Your task to perform on an android device: Add "corsair k70" to the cart on newegg.com, then select checkout. Image 0: 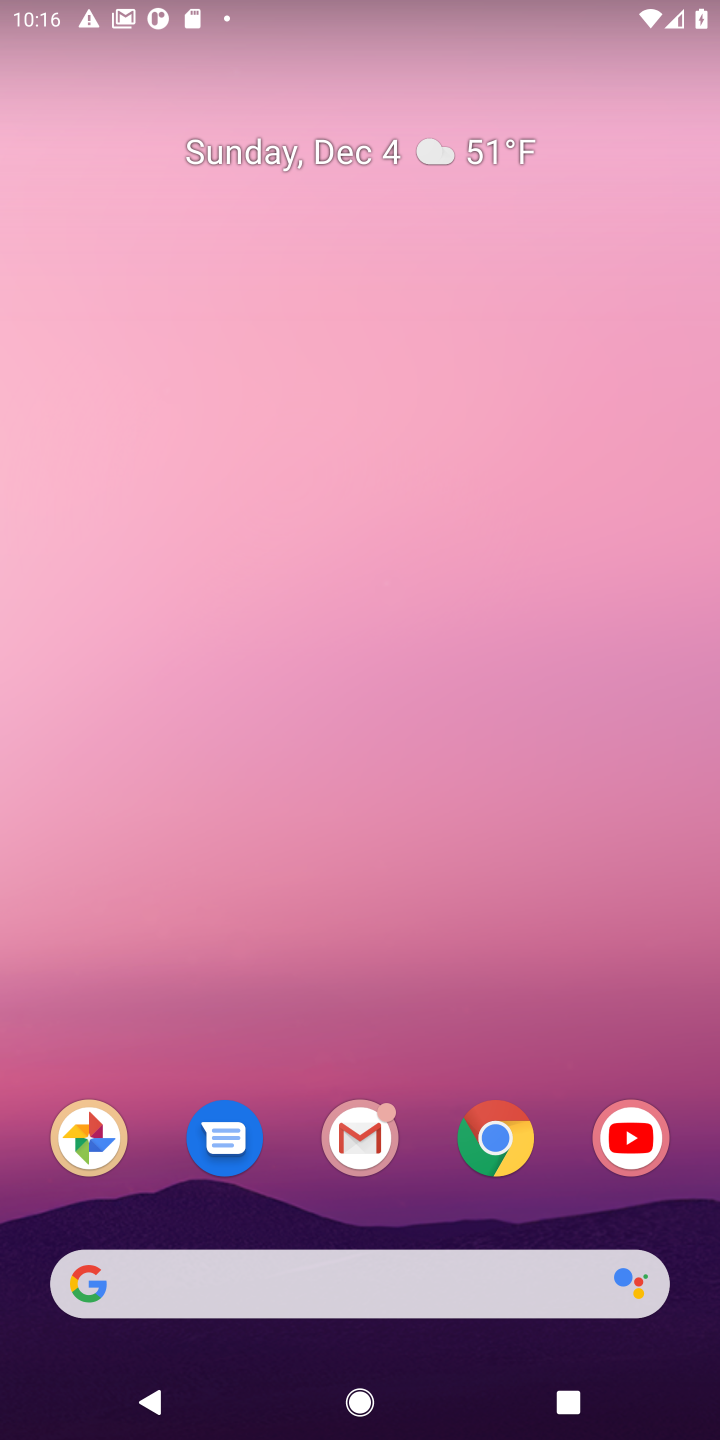
Step 0: click (502, 1140)
Your task to perform on an android device: Add "corsair k70" to the cart on newegg.com, then select checkout. Image 1: 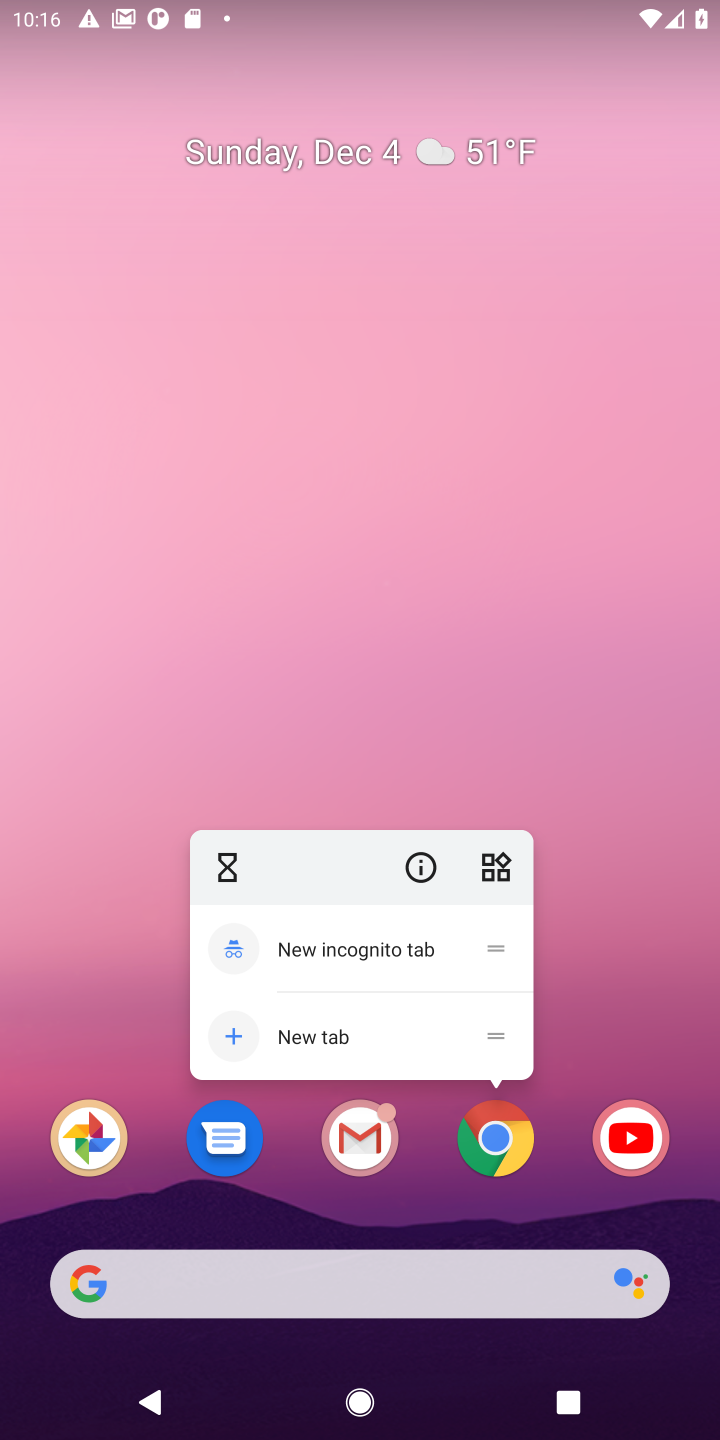
Step 1: click (502, 1140)
Your task to perform on an android device: Add "corsair k70" to the cart on newegg.com, then select checkout. Image 2: 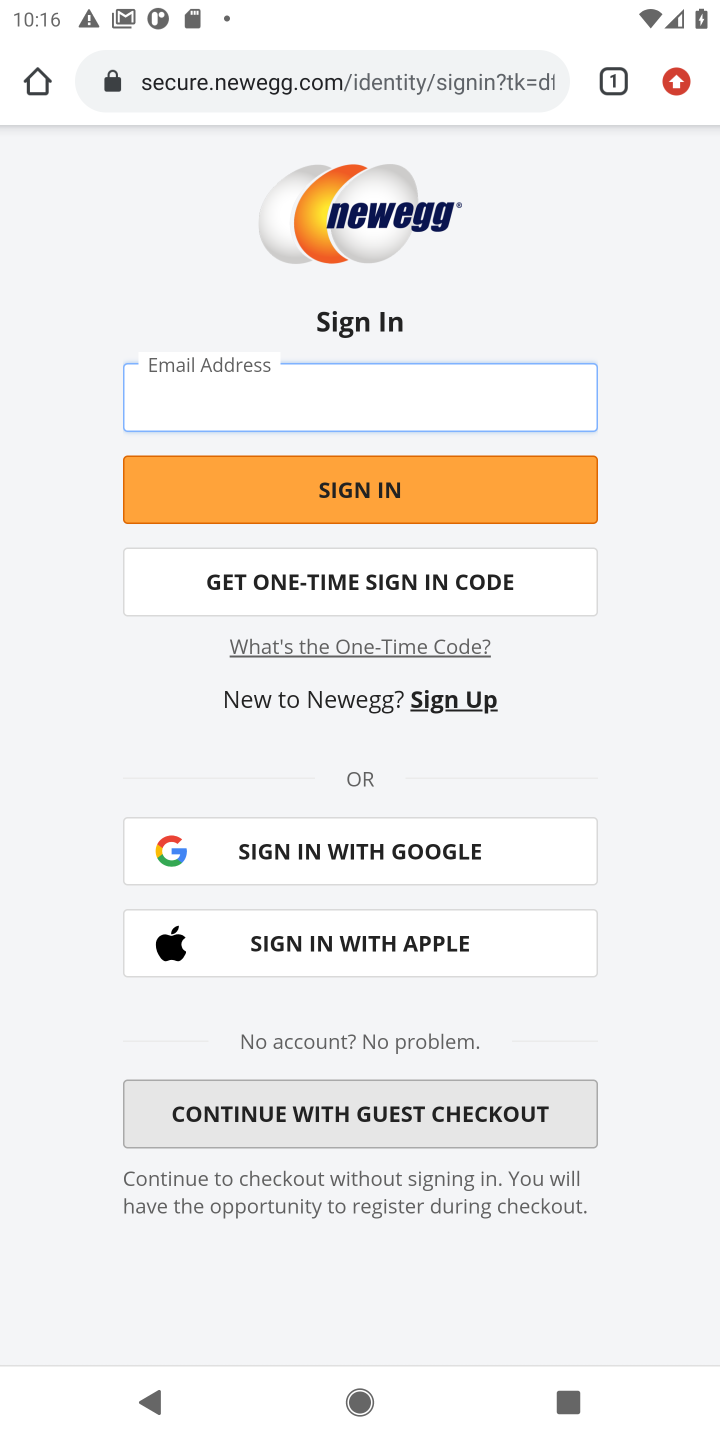
Step 2: press back button
Your task to perform on an android device: Add "corsair k70" to the cart on newegg.com, then select checkout. Image 3: 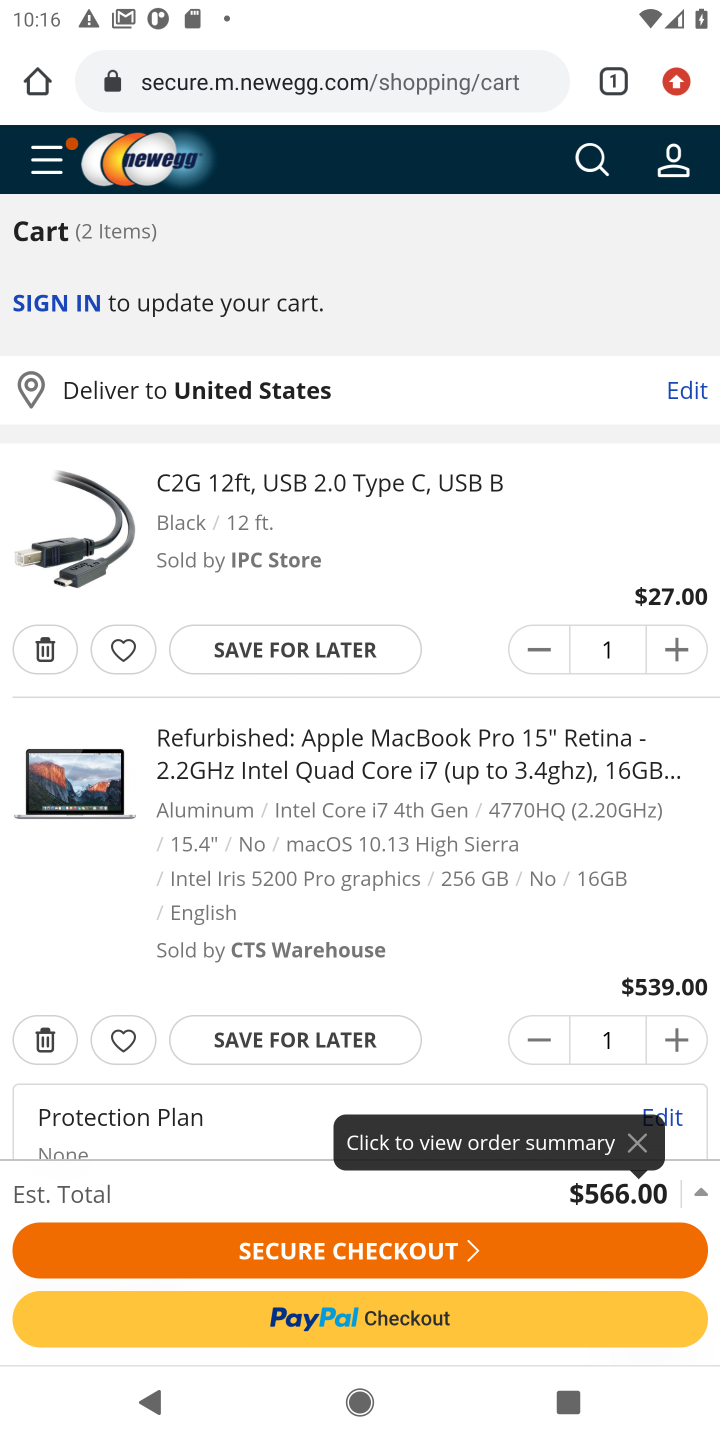
Step 3: click (591, 167)
Your task to perform on an android device: Add "corsair k70" to the cart on newegg.com, then select checkout. Image 4: 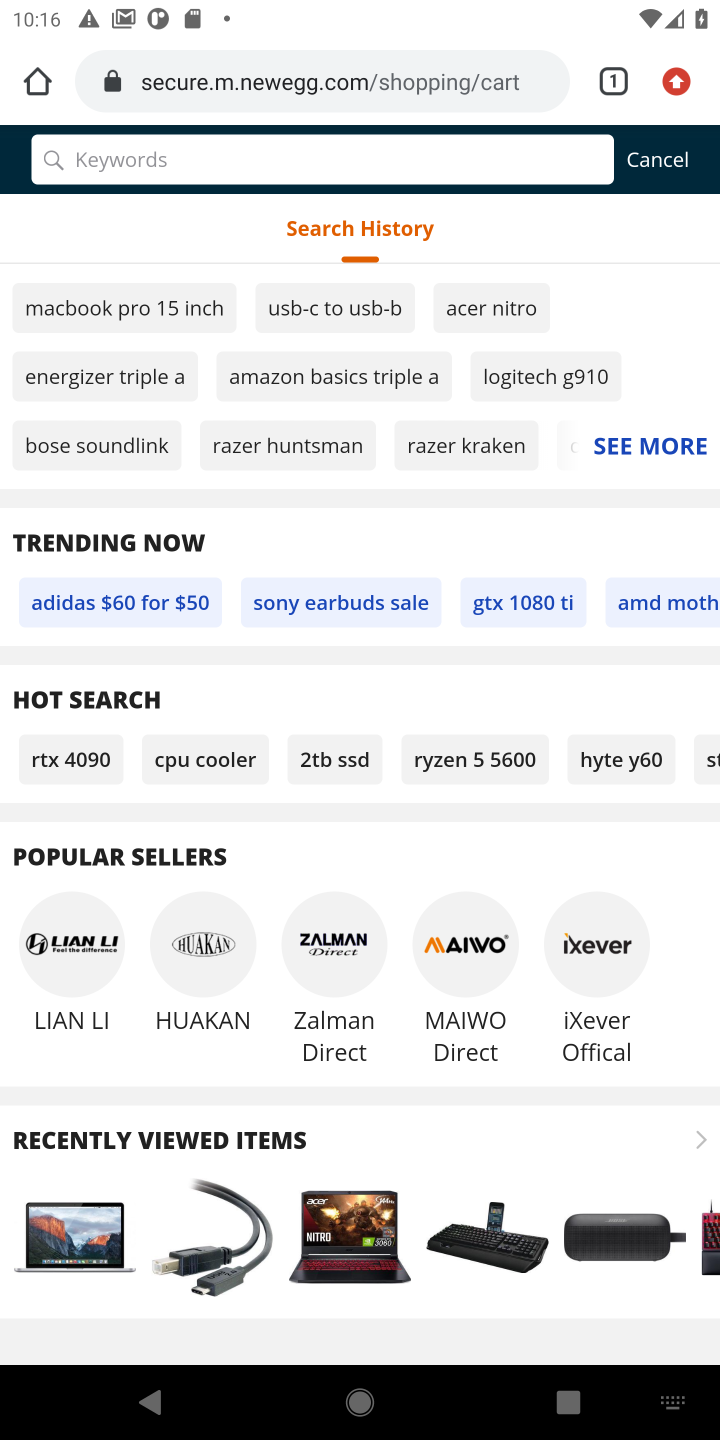
Step 4: press enter
Your task to perform on an android device: Add "corsair k70" to the cart on newegg.com, then select checkout. Image 5: 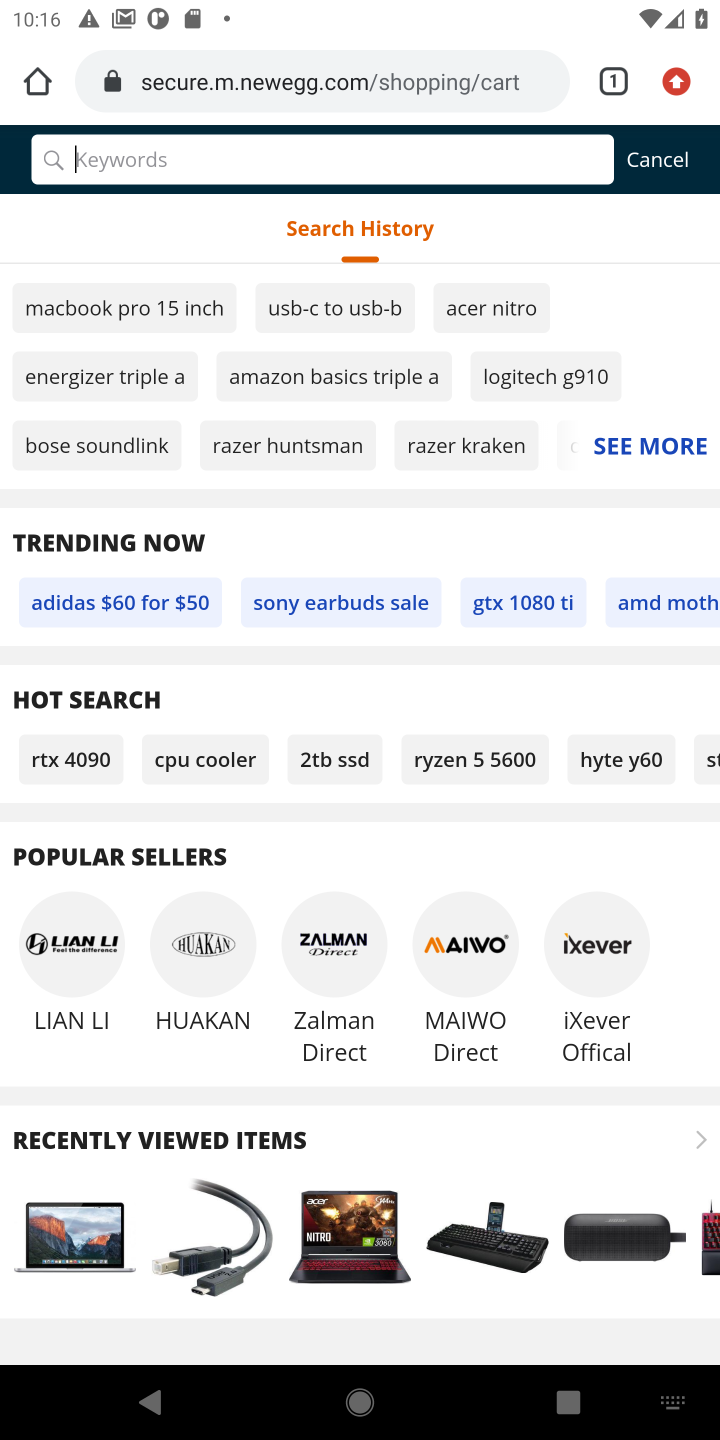
Step 5: type "corsair k70"
Your task to perform on an android device: Add "corsair k70" to the cart on newegg.com, then select checkout. Image 6: 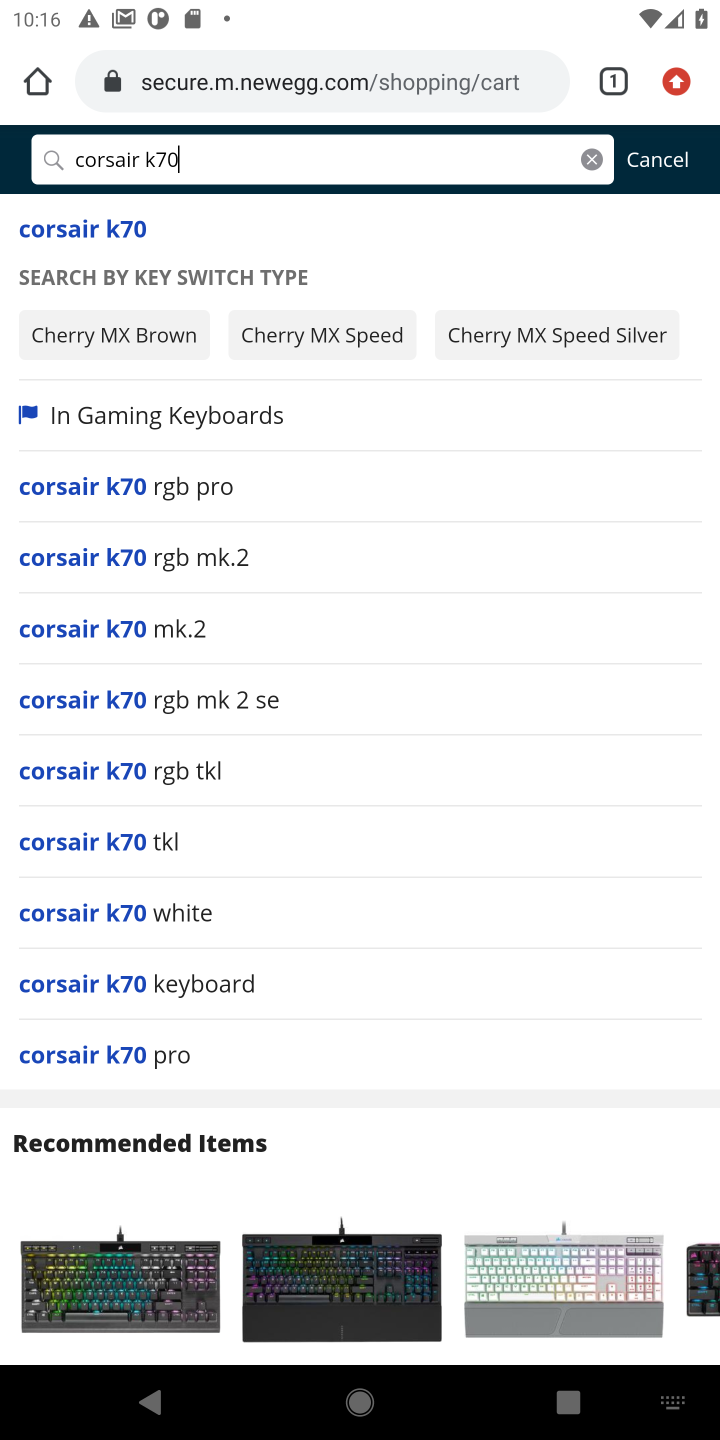
Step 6: click (92, 226)
Your task to perform on an android device: Add "corsair k70" to the cart on newegg.com, then select checkout. Image 7: 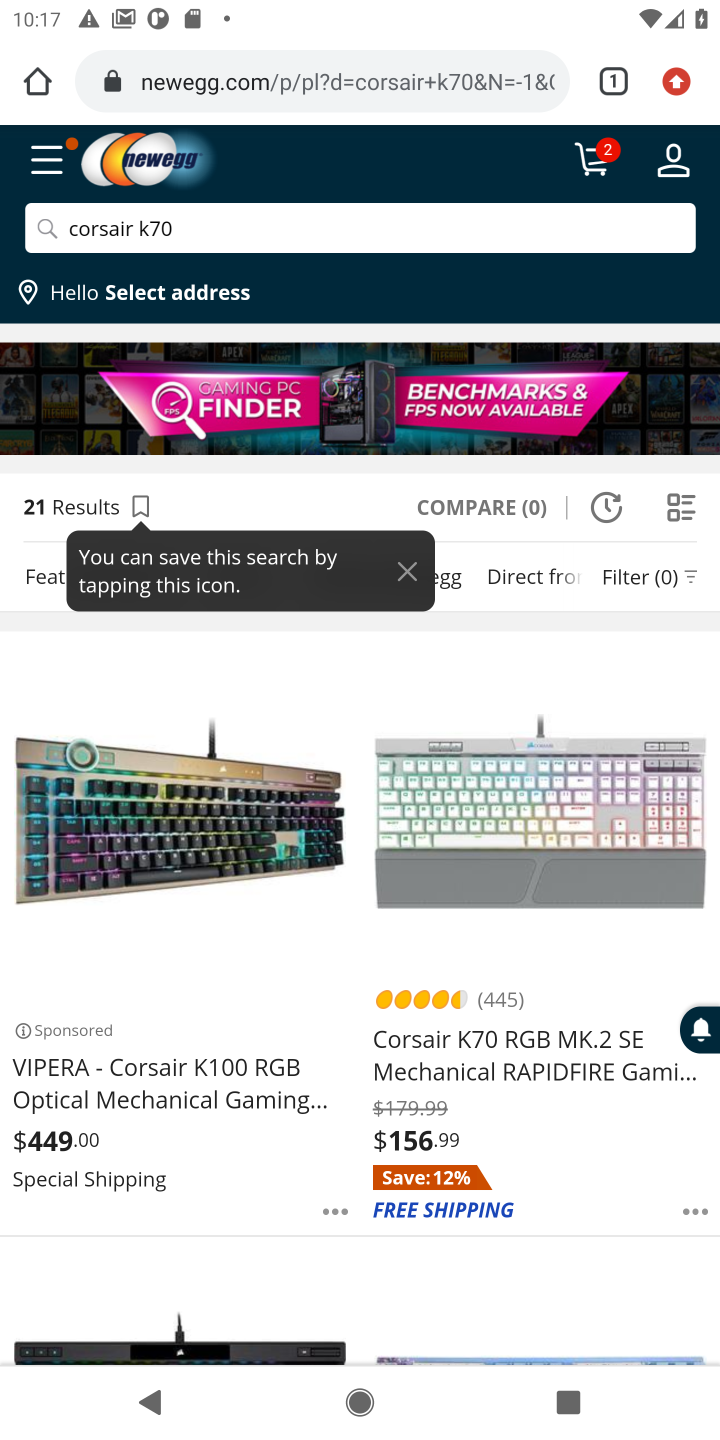
Step 7: click (606, 789)
Your task to perform on an android device: Add "corsair k70" to the cart on newegg.com, then select checkout. Image 8: 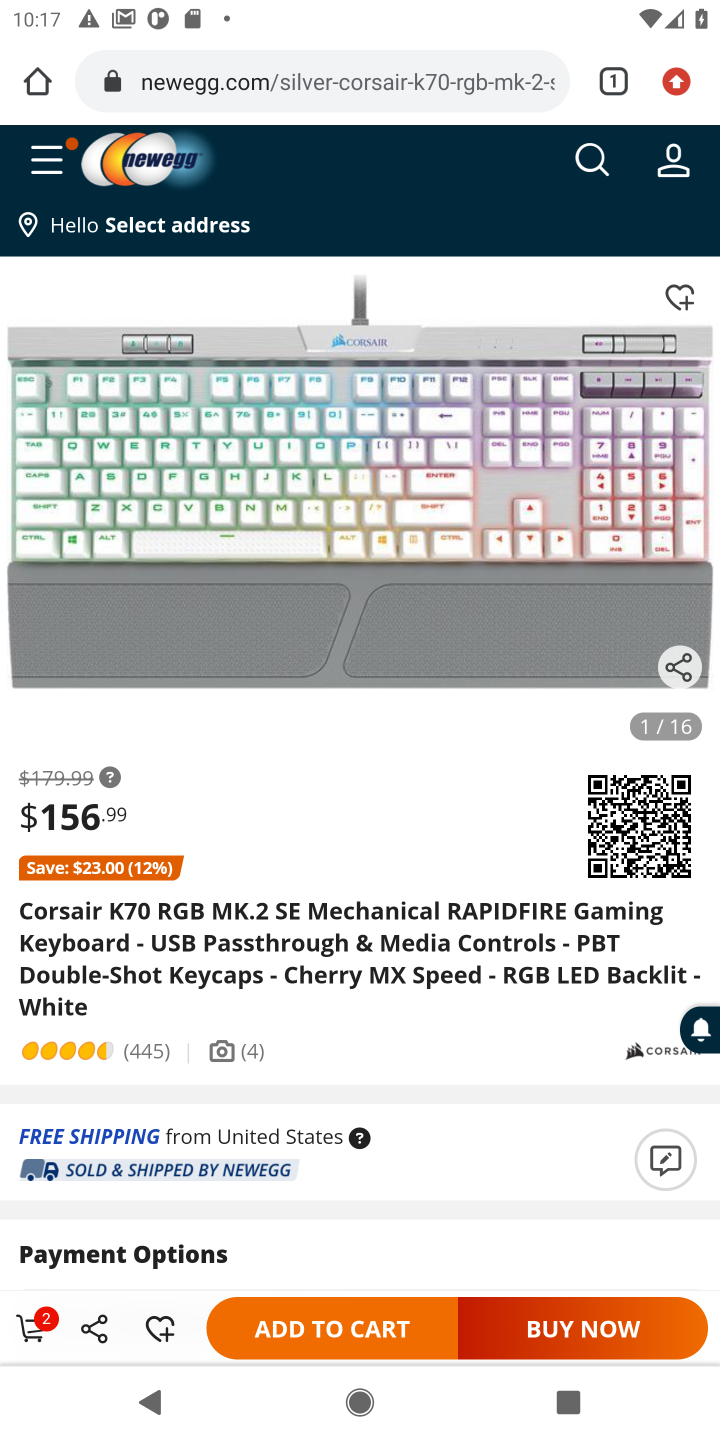
Step 8: click (304, 1330)
Your task to perform on an android device: Add "corsair k70" to the cart on newegg.com, then select checkout. Image 9: 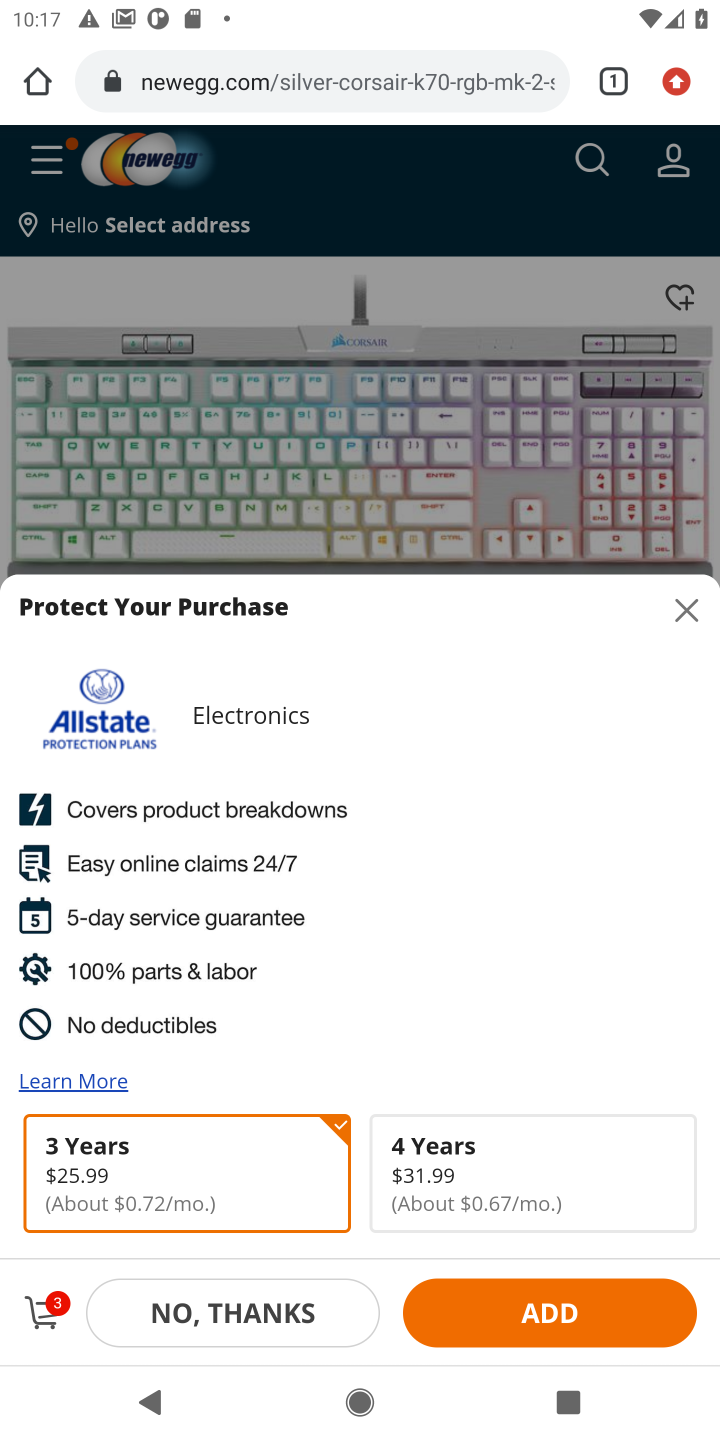
Step 9: click (38, 1321)
Your task to perform on an android device: Add "corsair k70" to the cart on newegg.com, then select checkout. Image 10: 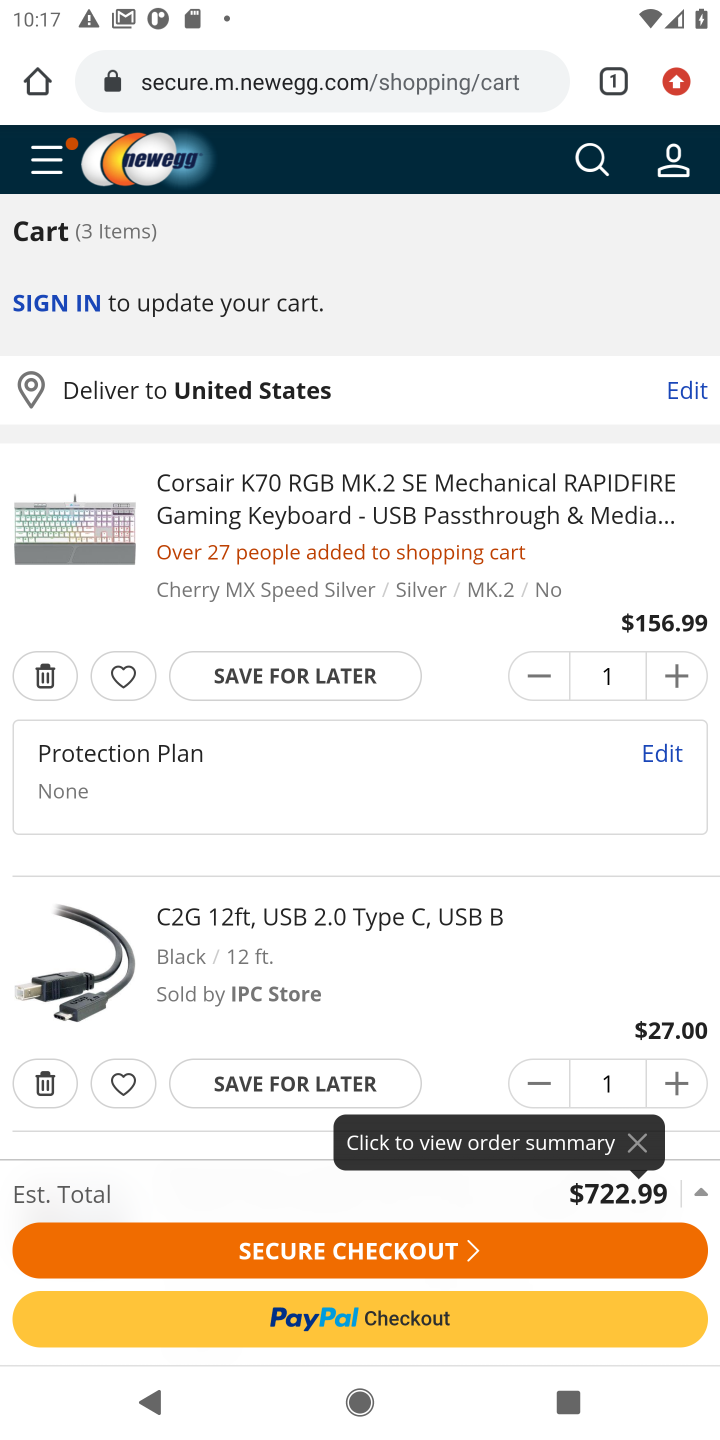
Step 10: click (317, 1248)
Your task to perform on an android device: Add "corsair k70" to the cart on newegg.com, then select checkout. Image 11: 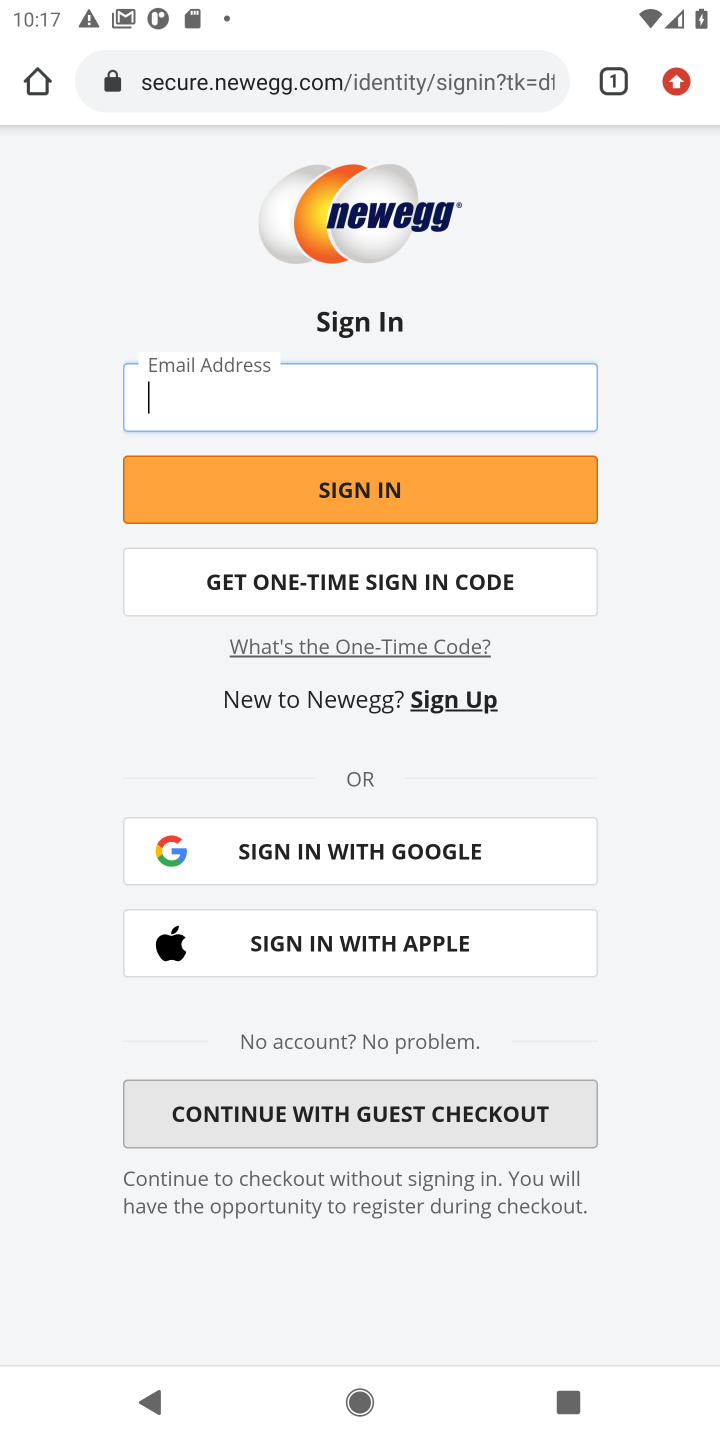
Step 11: task complete